Your task to perform on an android device: install app "Move to iOS" Image 0: 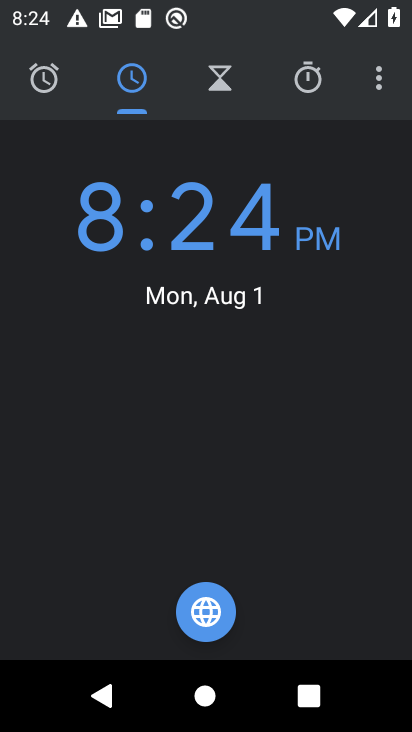
Step 0: press home button
Your task to perform on an android device: install app "Move to iOS" Image 1: 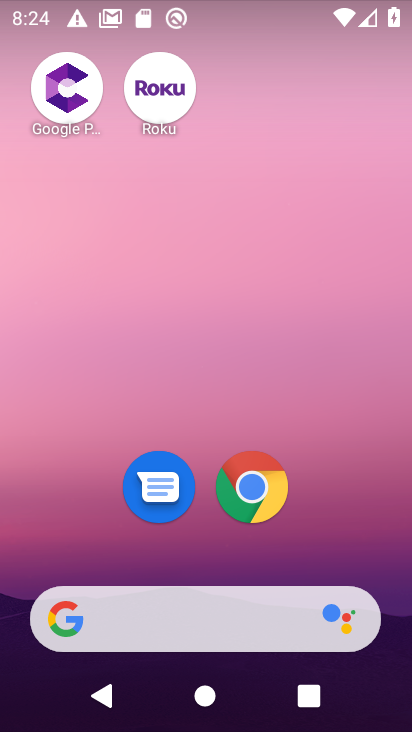
Step 1: drag from (165, 352) to (151, 0)
Your task to perform on an android device: install app "Move to iOS" Image 2: 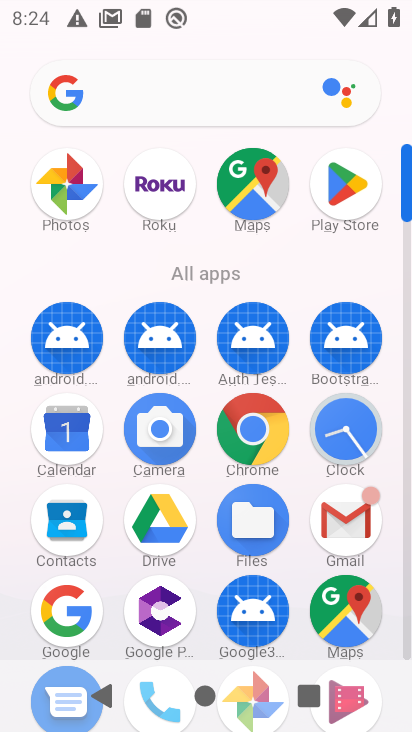
Step 2: click (328, 187)
Your task to perform on an android device: install app "Move to iOS" Image 3: 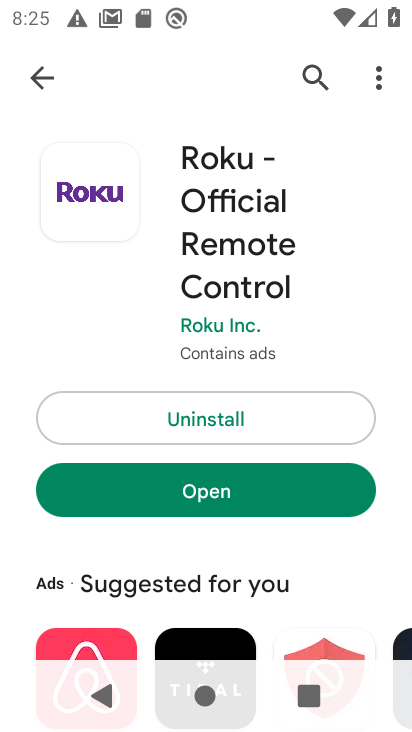
Step 3: click (35, 88)
Your task to perform on an android device: install app "Move to iOS" Image 4: 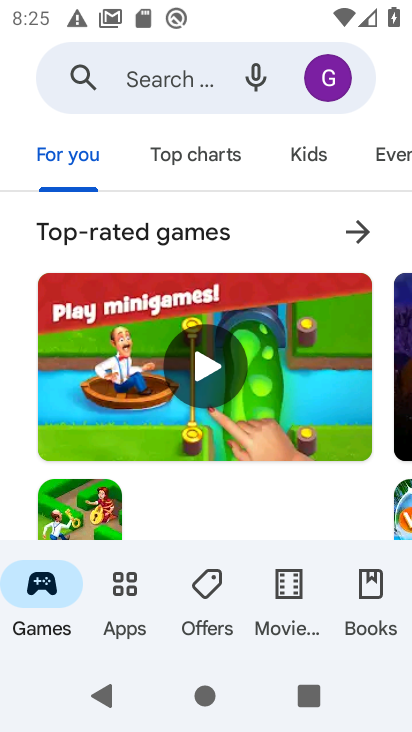
Step 4: click (112, 87)
Your task to perform on an android device: install app "Move to iOS" Image 5: 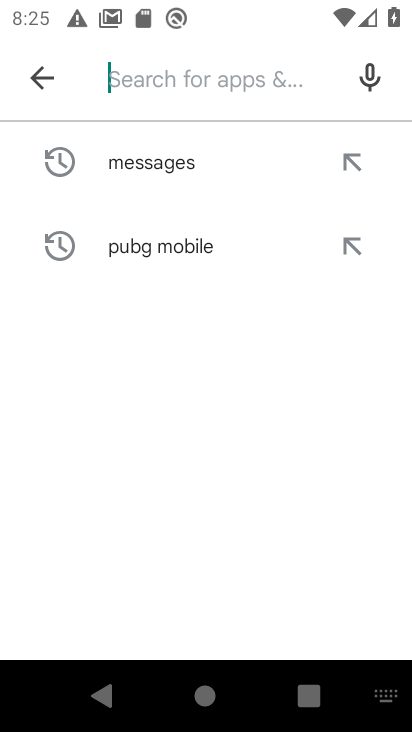
Step 5: type "Move to iOS"
Your task to perform on an android device: install app "Move to iOS" Image 6: 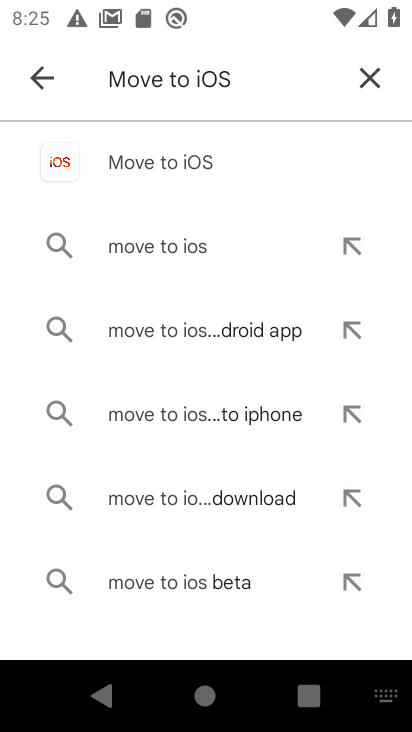
Step 6: click (182, 168)
Your task to perform on an android device: install app "Move to iOS" Image 7: 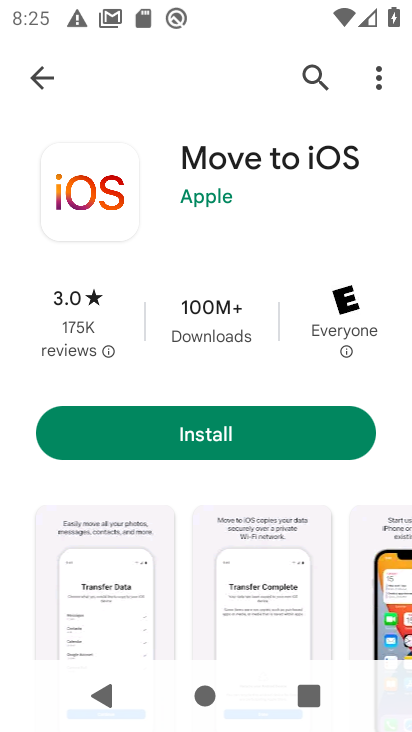
Step 7: click (262, 438)
Your task to perform on an android device: install app "Move to iOS" Image 8: 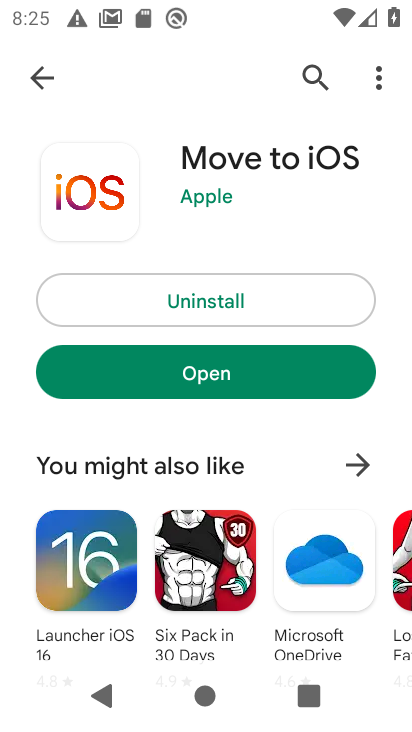
Step 8: click (259, 357)
Your task to perform on an android device: install app "Move to iOS" Image 9: 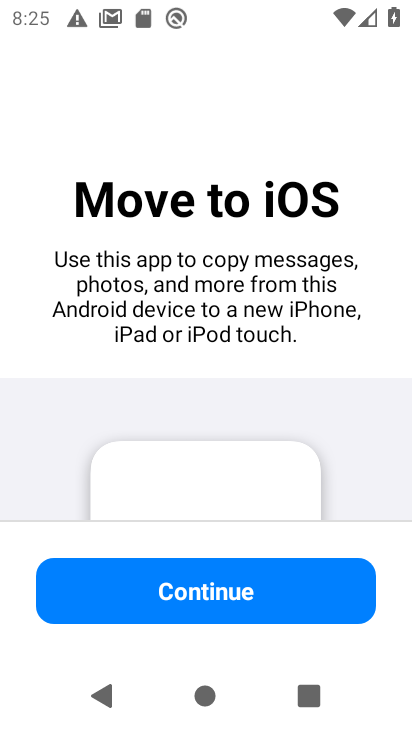
Step 9: task complete